Your task to perform on an android device: turn smart compose on in the gmail app Image 0: 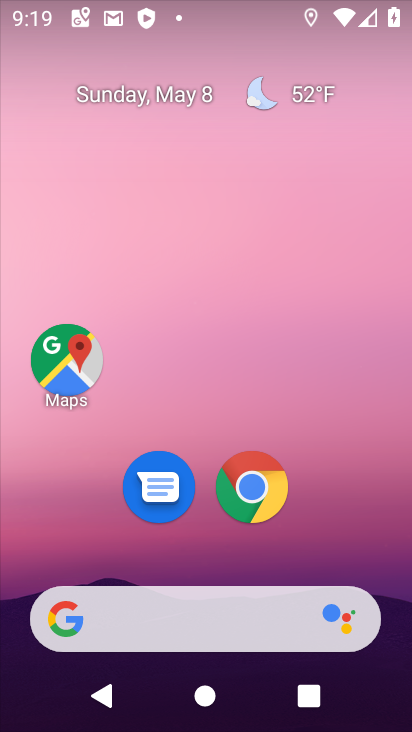
Step 0: drag from (391, 611) to (303, 54)
Your task to perform on an android device: turn smart compose on in the gmail app Image 1: 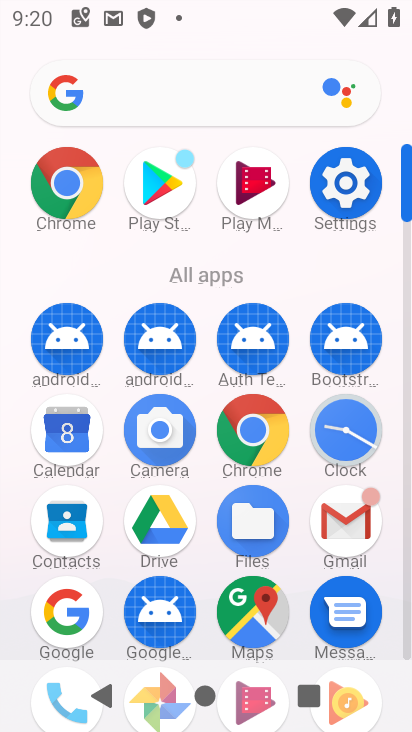
Step 1: click (345, 521)
Your task to perform on an android device: turn smart compose on in the gmail app Image 2: 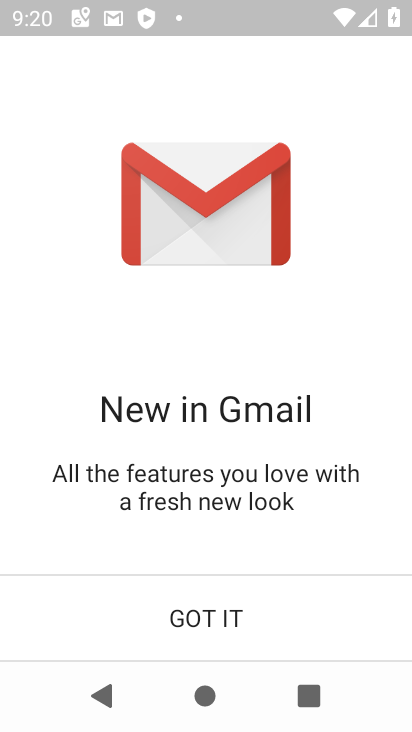
Step 2: click (318, 634)
Your task to perform on an android device: turn smart compose on in the gmail app Image 3: 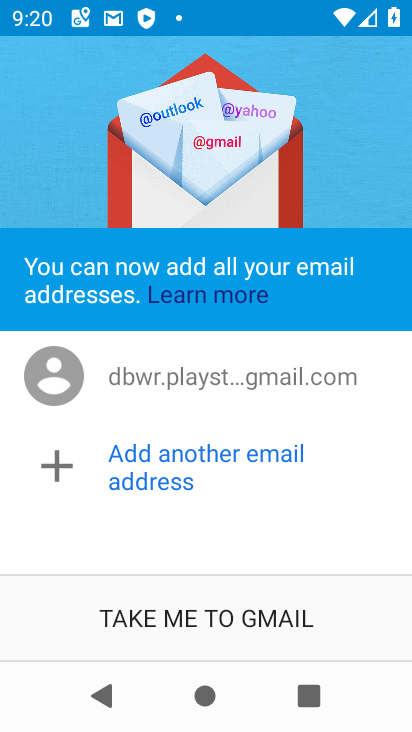
Step 3: click (223, 624)
Your task to perform on an android device: turn smart compose on in the gmail app Image 4: 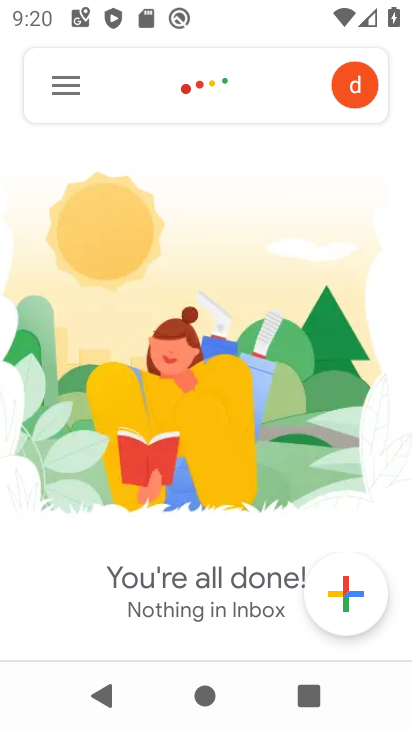
Step 4: click (59, 88)
Your task to perform on an android device: turn smart compose on in the gmail app Image 5: 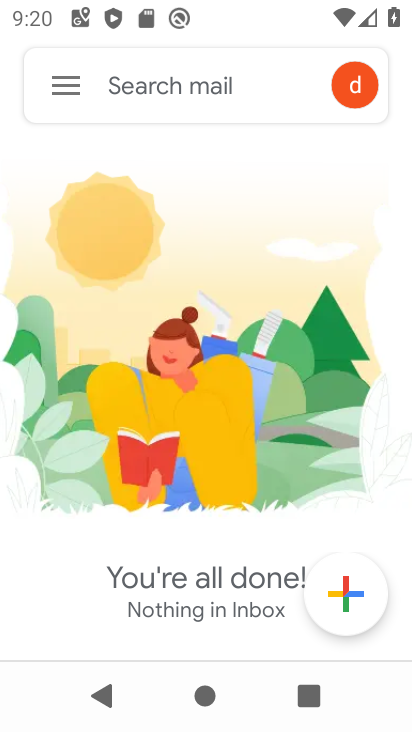
Step 5: click (59, 88)
Your task to perform on an android device: turn smart compose on in the gmail app Image 6: 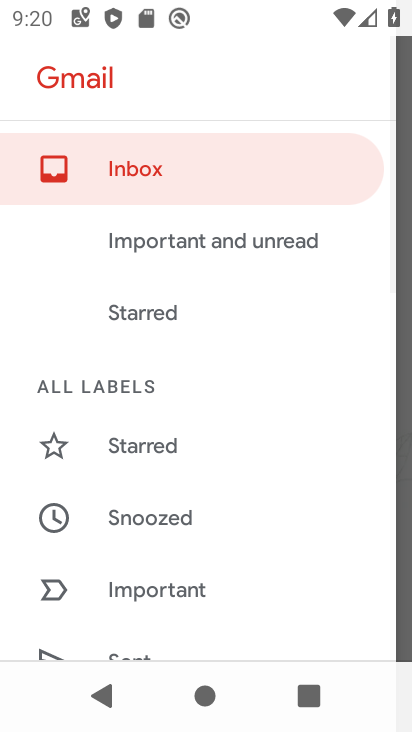
Step 6: drag from (182, 578) to (205, 110)
Your task to perform on an android device: turn smart compose on in the gmail app Image 7: 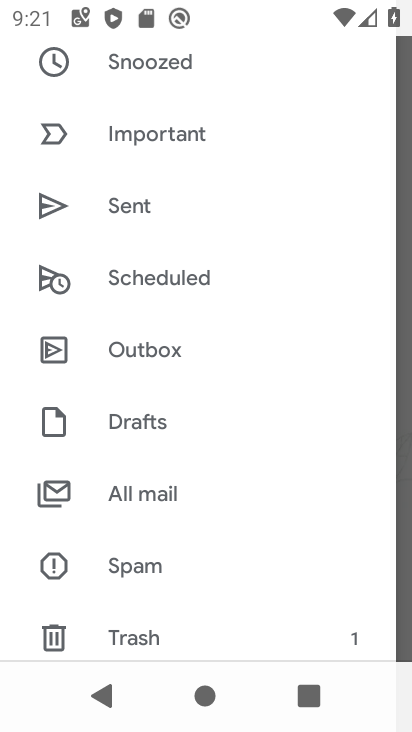
Step 7: drag from (175, 597) to (220, 96)
Your task to perform on an android device: turn smart compose on in the gmail app Image 8: 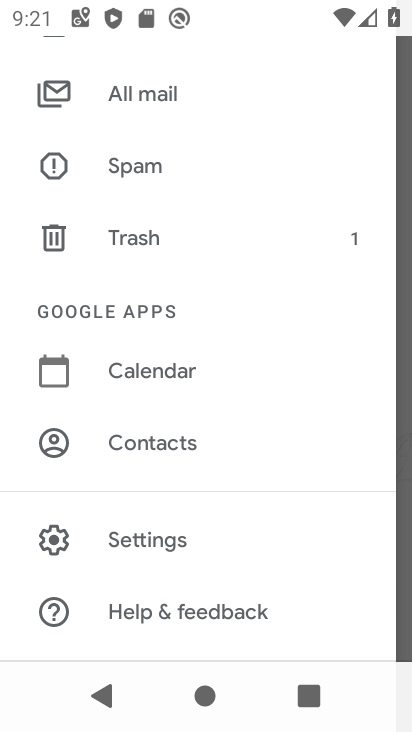
Step 8: click (125, 557)
Your task to perform on an android device: turn smart compose on in the gmail app Image 9: 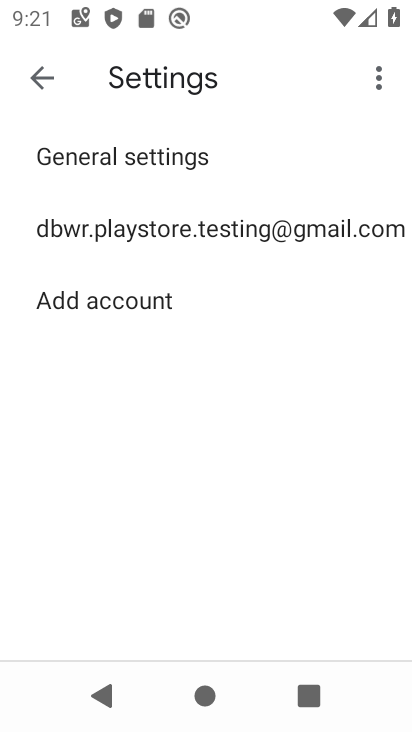
Step 9: click (211, 238)
Your task to perform on an android device: turn smart compose on in the gmail app Image 10: 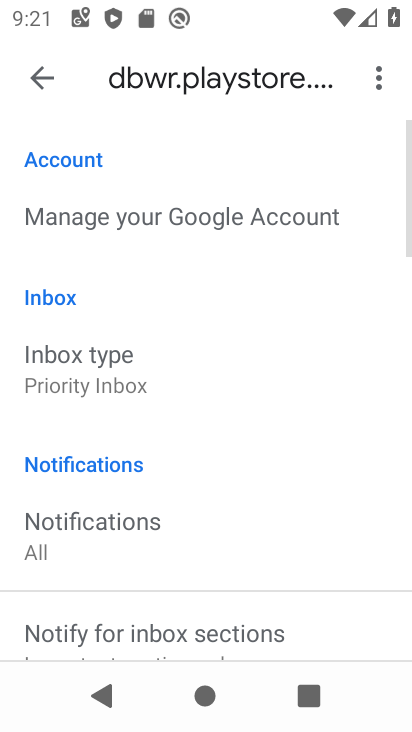
Step 10: task complete